Your task to perform on an android device: toggle improve location accuracy Image 0: 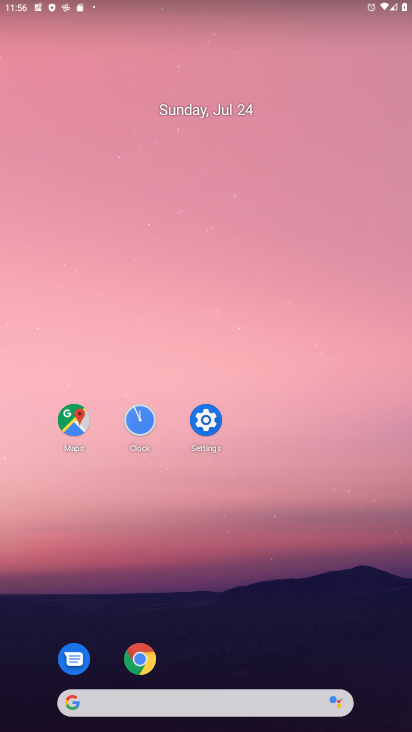
Step 0: click (202, 411)
Your task to perform on an android device: toggle improve location accuracy Image 1: 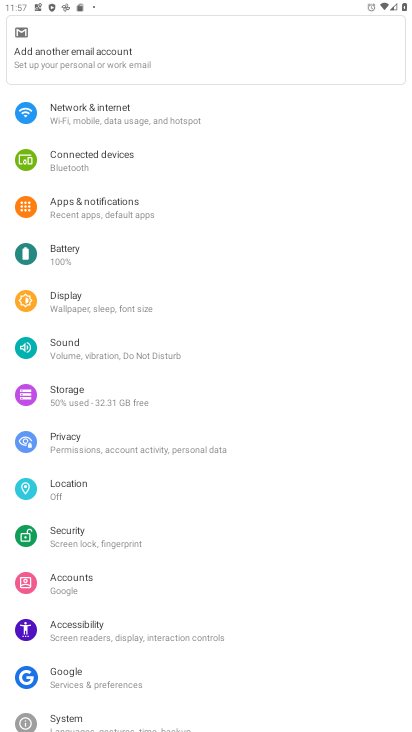
Step 1: click (66, 479)
Your task to perform on an android device: toggle improve location accuracy Image 2: 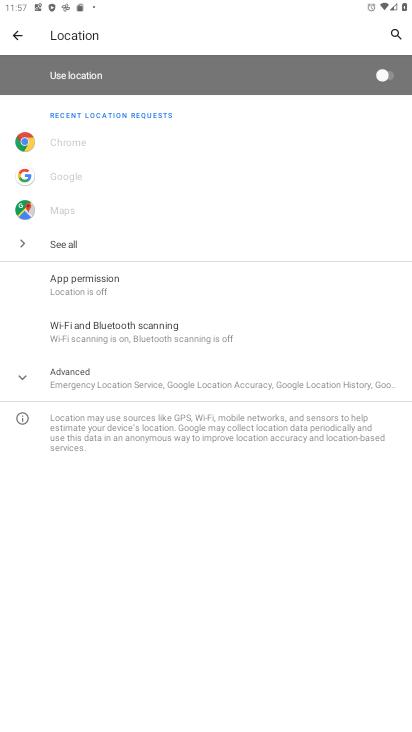
Step 2: click (26, 375)
Your task to perform on an android device: toggle improve location accuracy Image 3: 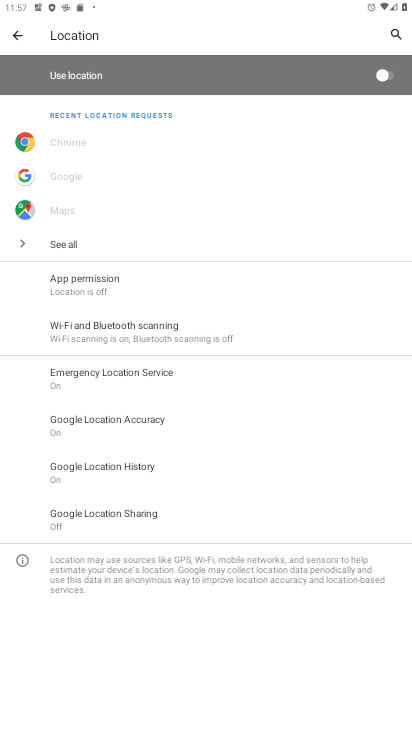
Step 3: click (130, 416)
Your task to perform on an android device: toggle improve location accuracy Image 4: 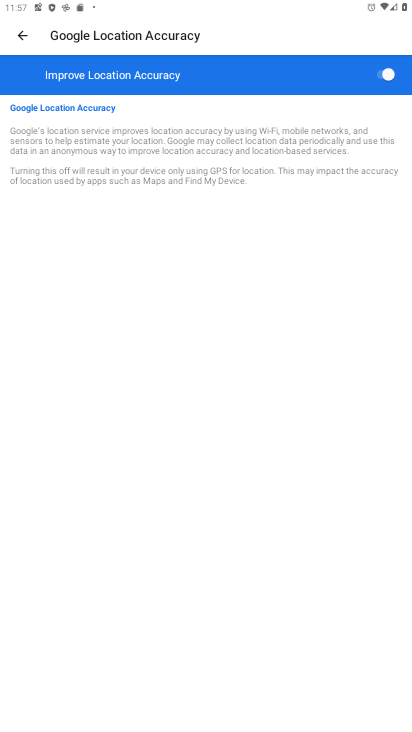
Step 4: click (373, 73)
Your task to perform on an android device: toggle improve location accuracy Image 5: 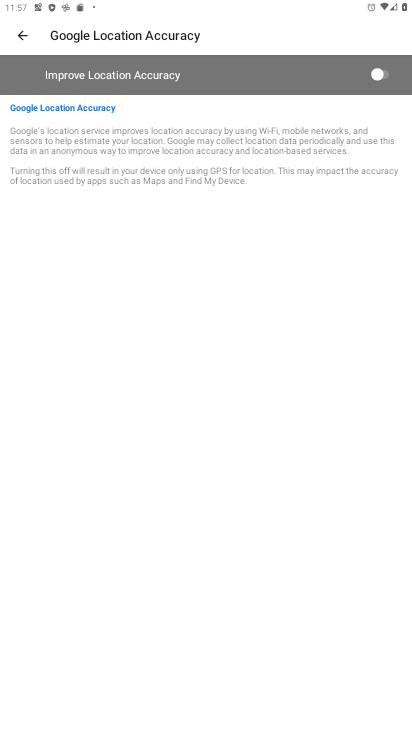
Step 5: task complete